Your task to perform on an android device: Is it going to rain today? Image 0: 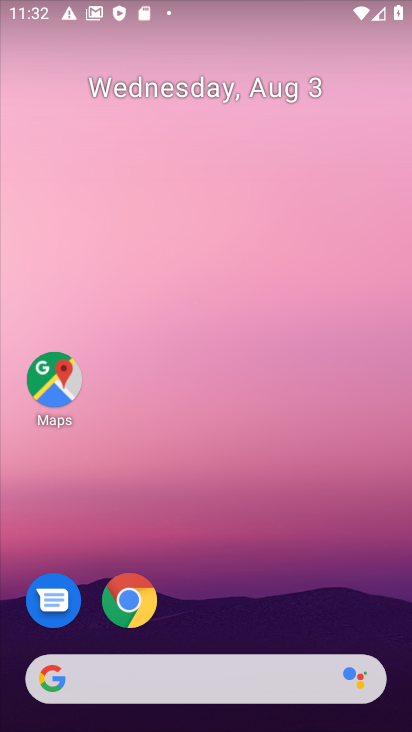
Step 0: click (131, 669)
Your task to perform on an android device: Is it going to rain today? Image 1: 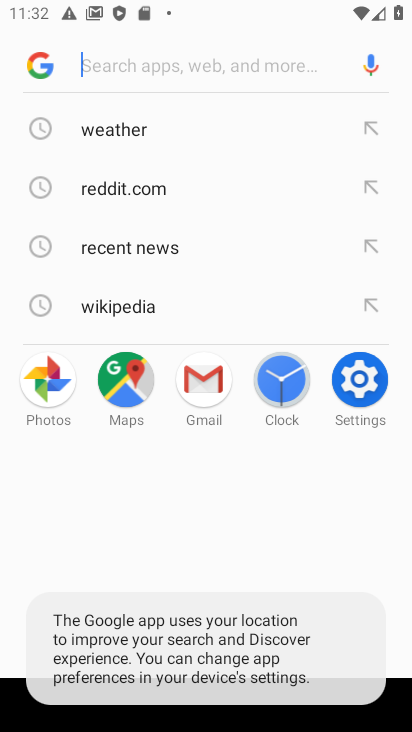
Step 1: click (115, 129)
Your task to perform on an android device: Is it going to rain today? Image 2: 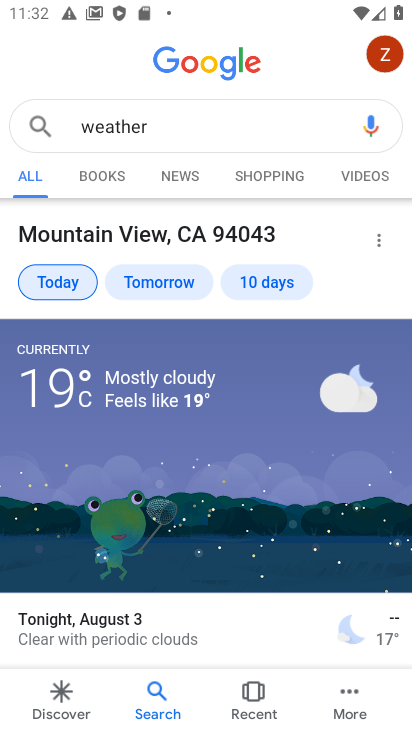
Step 2: task complete